Your task to perform on an android device: Open the phone app and click the voicemail tab. Image 0: 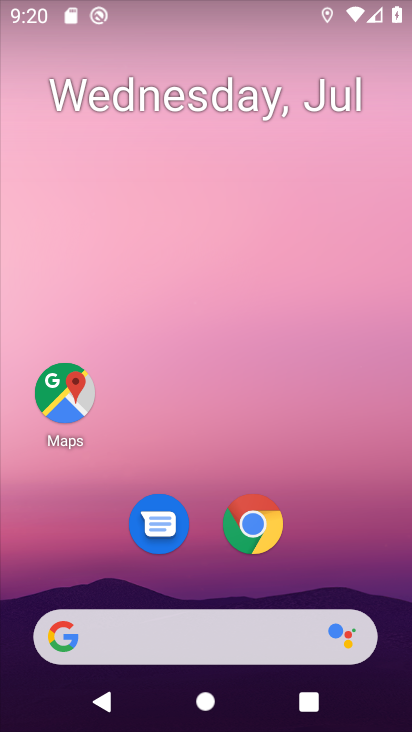
Step 0: drag from (317, 540) to (332, 30)
Your task to perform on an android device: Open the phone app and click the voicemail tab. Image 1: 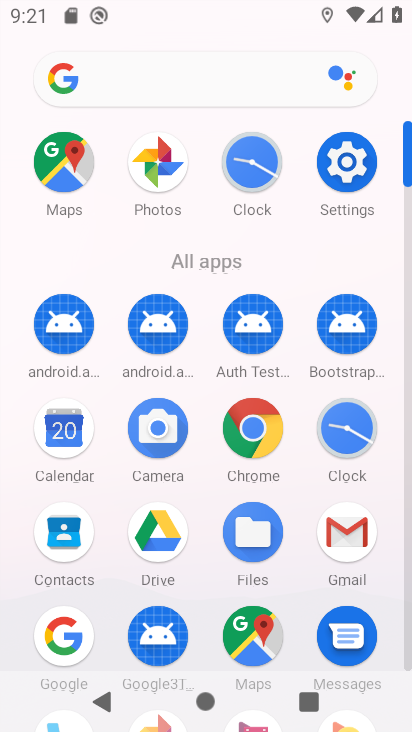
Step 1: drag from (213, 443) to (210, 189)
Your task to perform on an android device: Open the phone app and click the voicemail tab. Image 2: 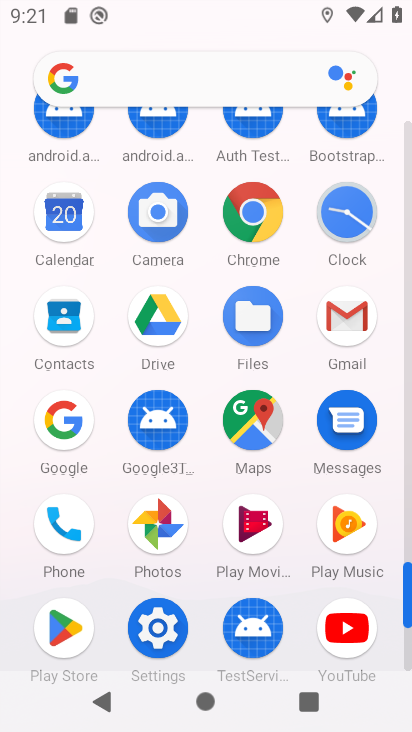
Step 2: click (51, 520)
Your task to perform on an android device: Open the phone app and click the voicemail tab. Image 3: 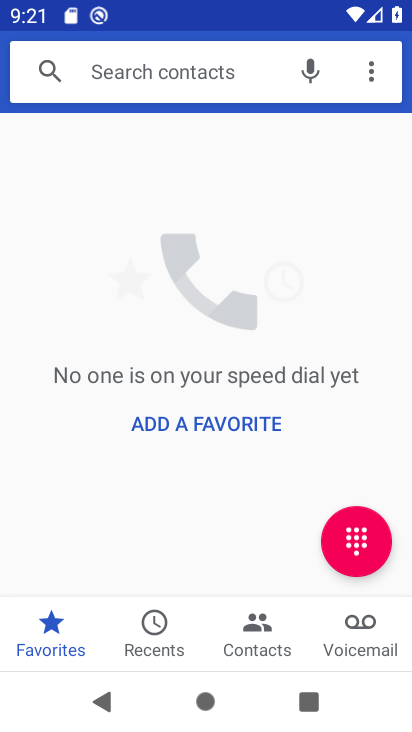
Step 3: click (372, 629)
Your task to perform on an android device: Open the phone app and click the voicemail tab. Image 4: 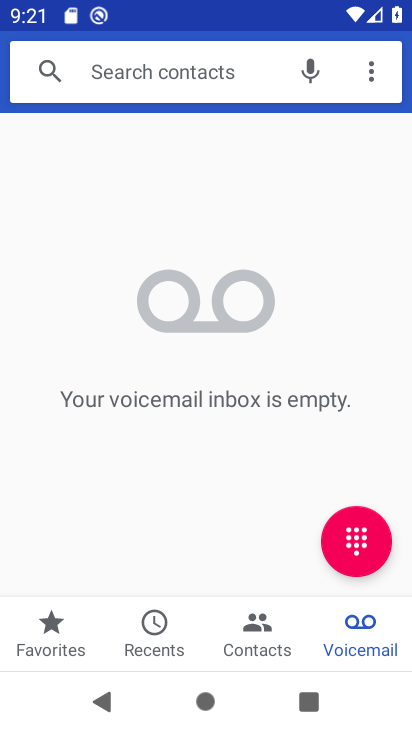
Step 4: task complete